Your task to perform on an android device: Go to privacy settings Image 0: 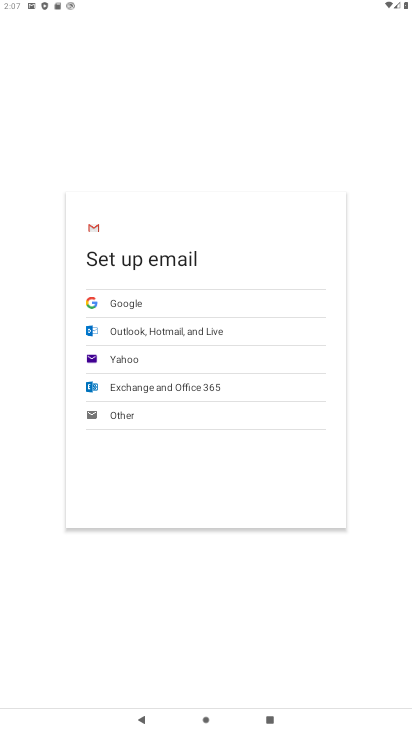
Step 0: press home button
Your task to perform on an android device: Go to privacy settings Image 1: 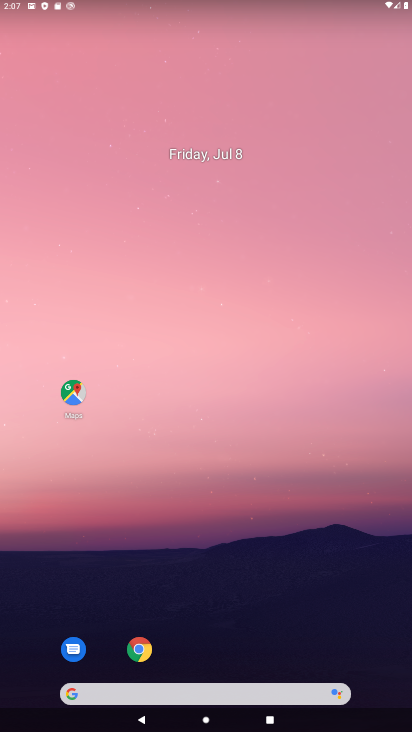
Step 1: drag from (270, 565) to (335, 152)
Your task to perform on an android device: Go to privacy settings Image 2: 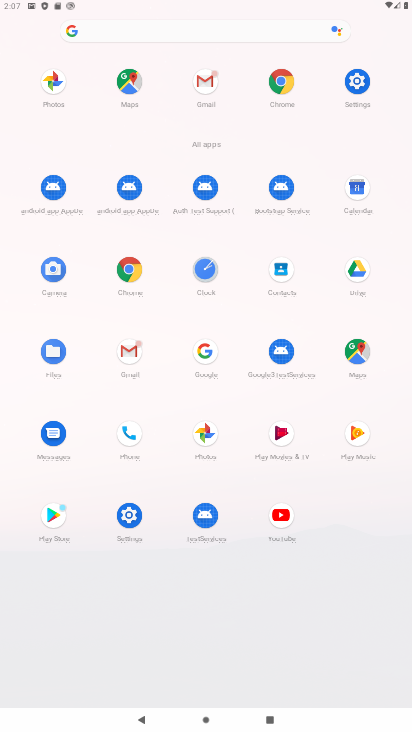
Step 2: click (356, 78)
Your task to perform on an android device: Go to privacy settings Image 3: 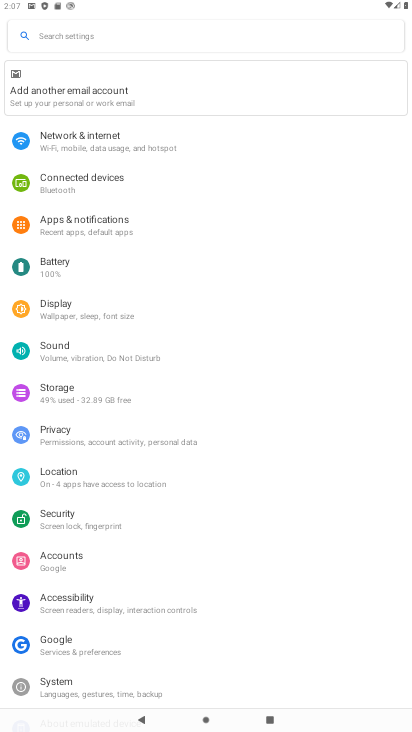
Step 3: click (85, 439)
Your task to perform on an android device: Go to privacy settings Image 4: 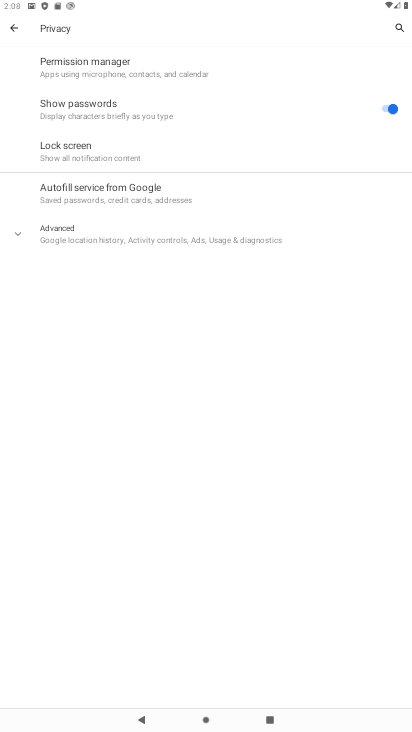
Step 4: task complete